Your task to perform on an android device: turn off notifications in google photos Image 0: 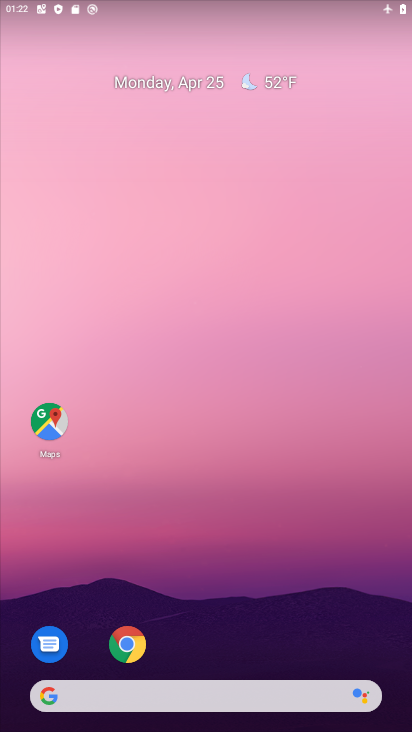
Step 0: drag from (253, 639) to (221, 45)
Your task to perform on an android device: turn off notifications in google photos Image 1: 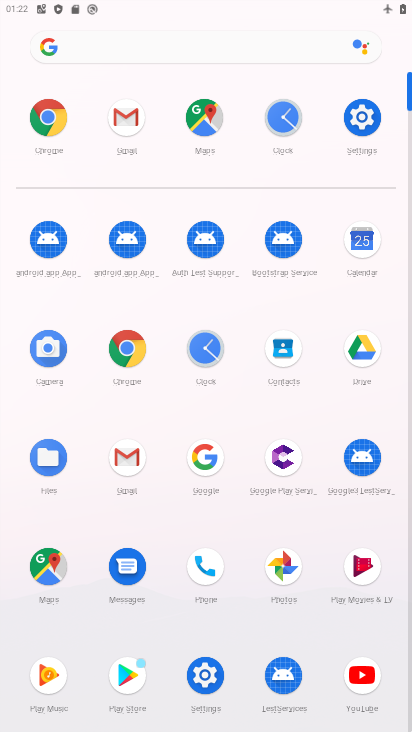
Step 1: click (286, 576)
Your task to perform on an android device: turn off notifications in google photos Image 2: 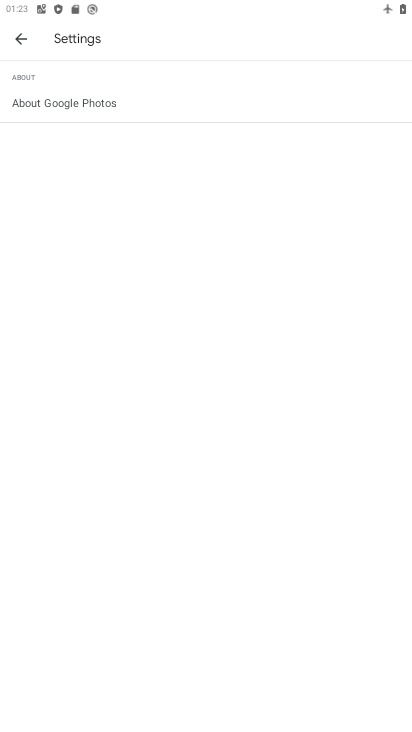
Step 2: click (21, 43)
Your task to perform on an android device: turn off notifications in google photos Image 3: 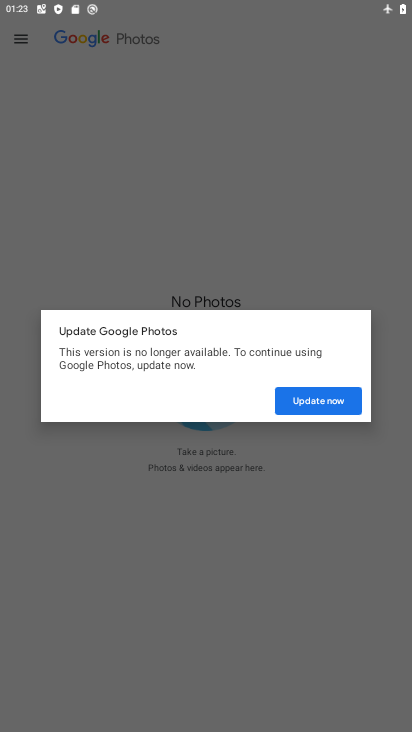
Step 3: click (310, 397)
Your task to perform on an android device: turn off notifications in google photos Image 4: 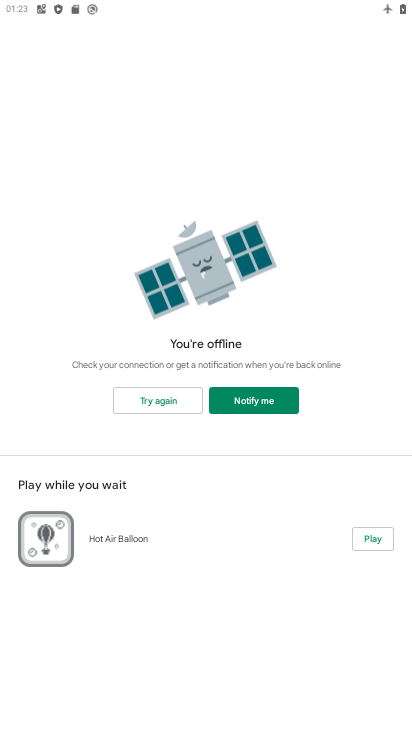
Step 4: task complete